Your task to perform on an android device: Open privacy settings Image 0: 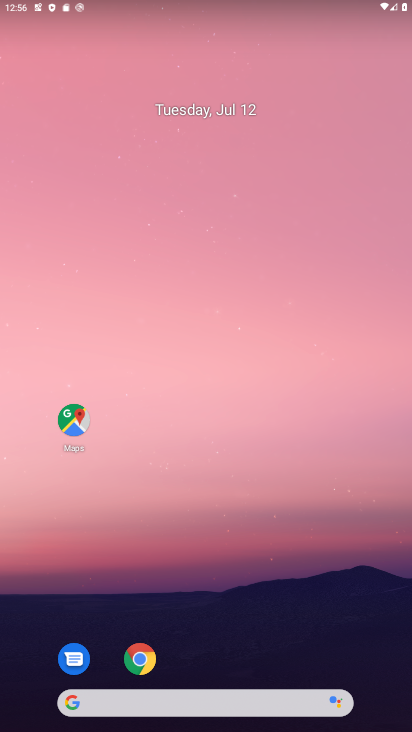
Step 0: drag from (213, 728) to (222, 77)
Your task to perform on an android device: Open privacy settings Image 1: 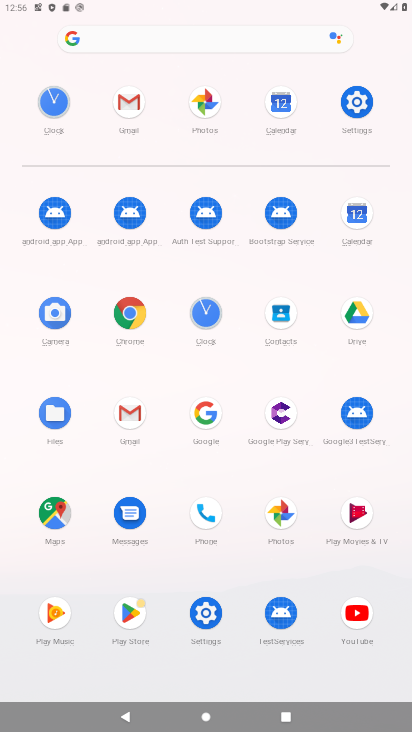
Step 1: click (351, 102)
Your task to perform on an android device: Open privacy settings Image 2: 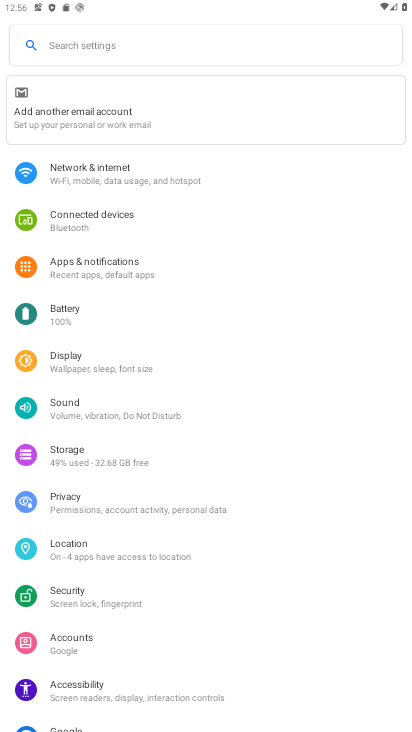
Step 2: click (65, 500)
Your task to perform on an android device: Open privacy settings Image 3: 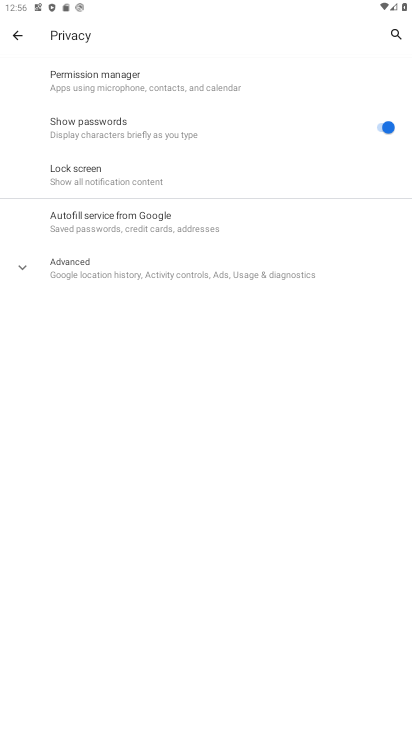
Step 3: task complete